Your task to perform on an android device: open app "DuckDuckGo Privacy Browser" (install if not already installed) Image 0: 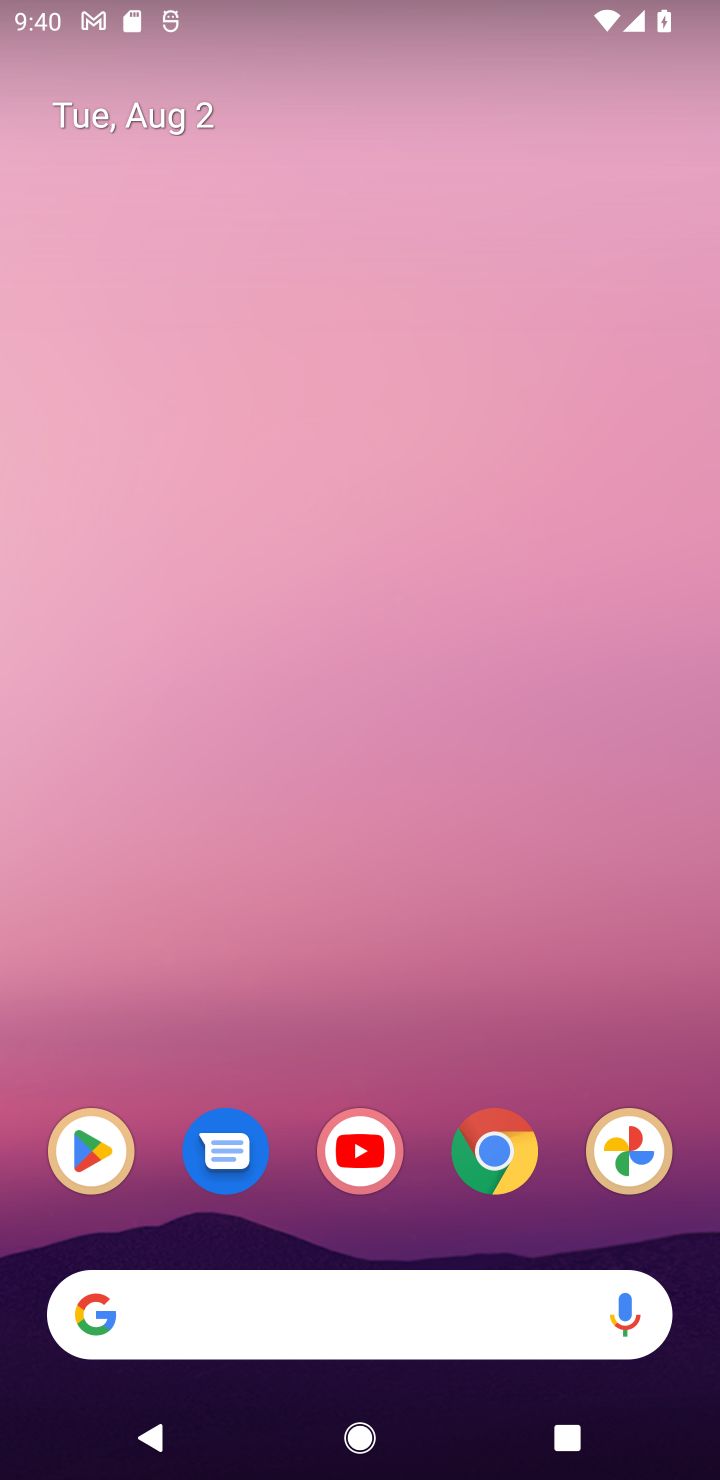
Step 0: drag from (302, 1264) to (282, 35)
Your task to perform on an android device: open app "DuckDuckGo Privacy Browser" (install if not already installed) Image 1: 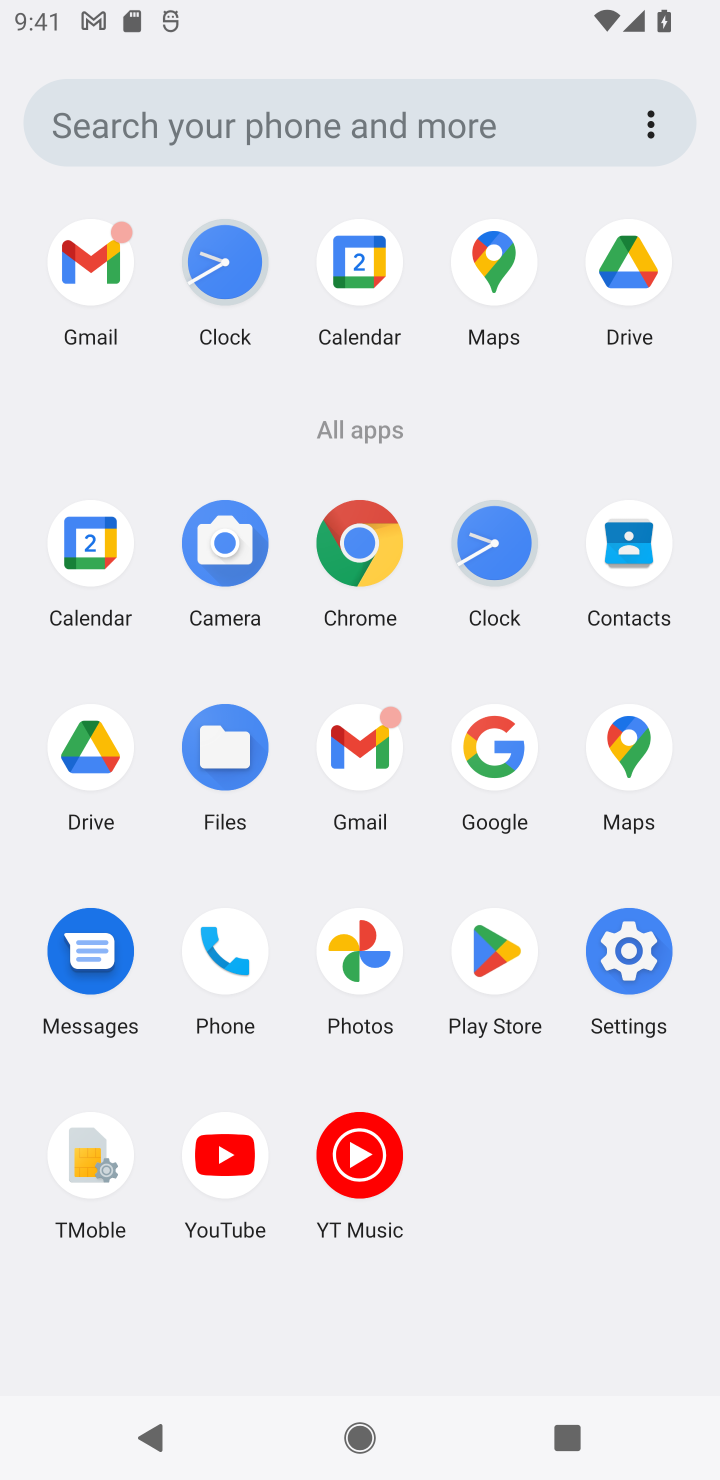
Step 1: click (462, 944)
Your task to perform on an android device: open app "DuckDuckGo Privacy Browser" (install if not already installed) Image 2: 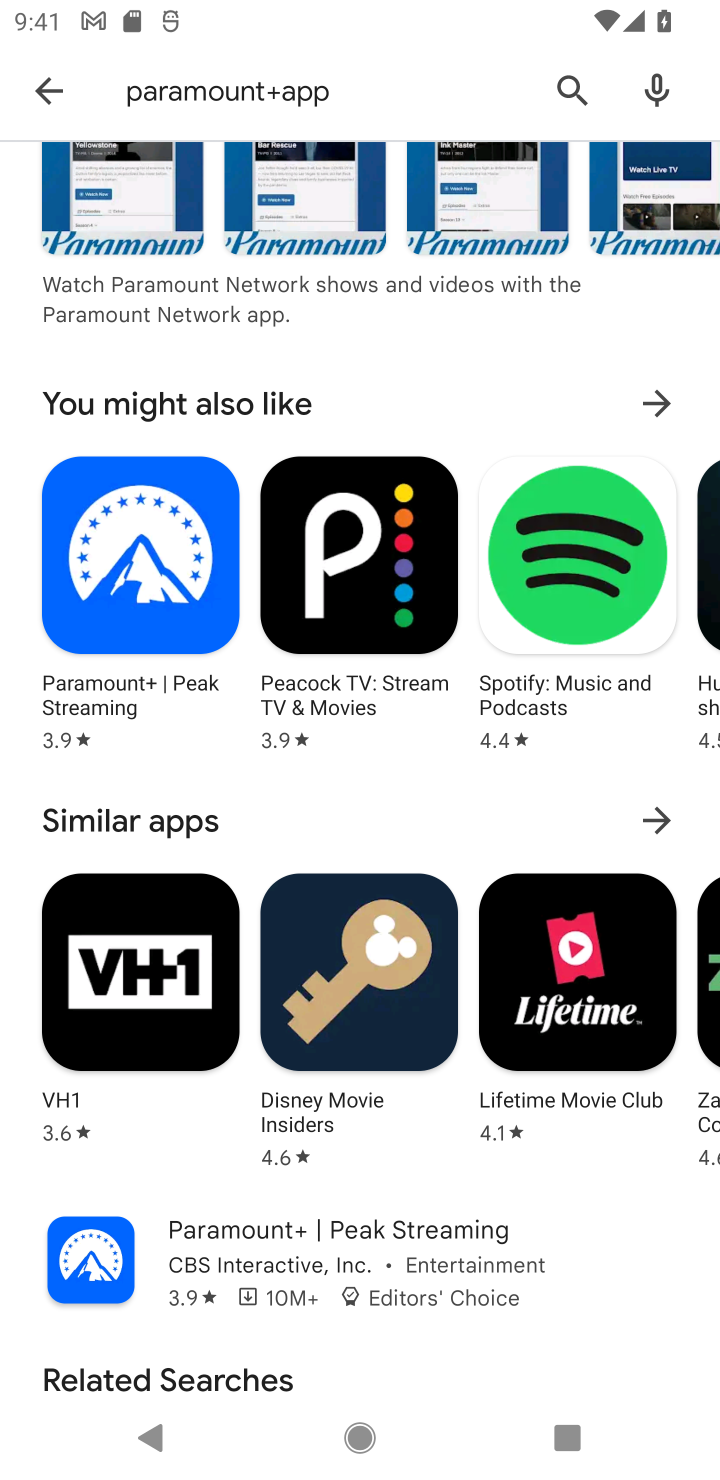
Step 2: click (39, 95)
Your task to perform on an android device: open app "DuckDuckGo Privacy Browser" (install if not already installed) Image 3: 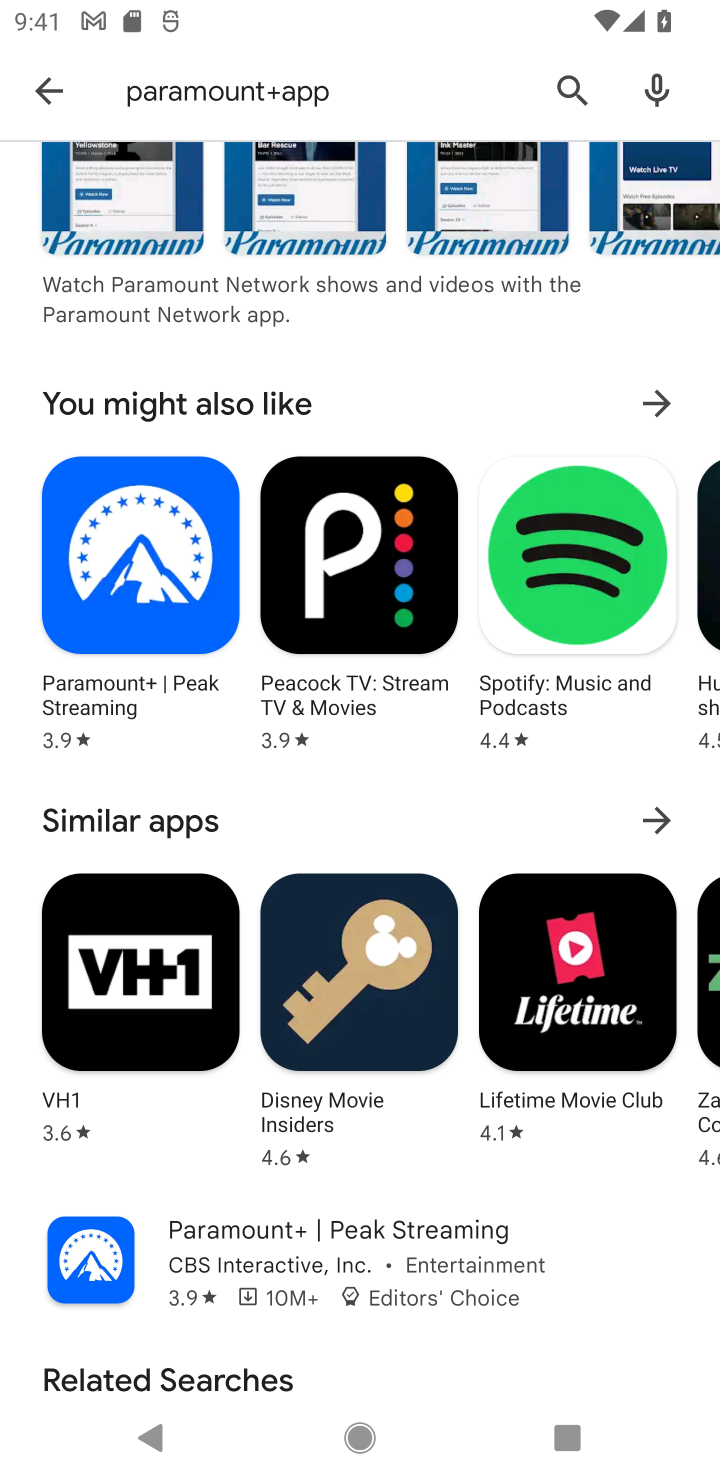
Step 3: click (40, 98)
Your task to perform on an android device: open app "DuckDuckGo Privacy Browser" (install if not already installed) Image 4: 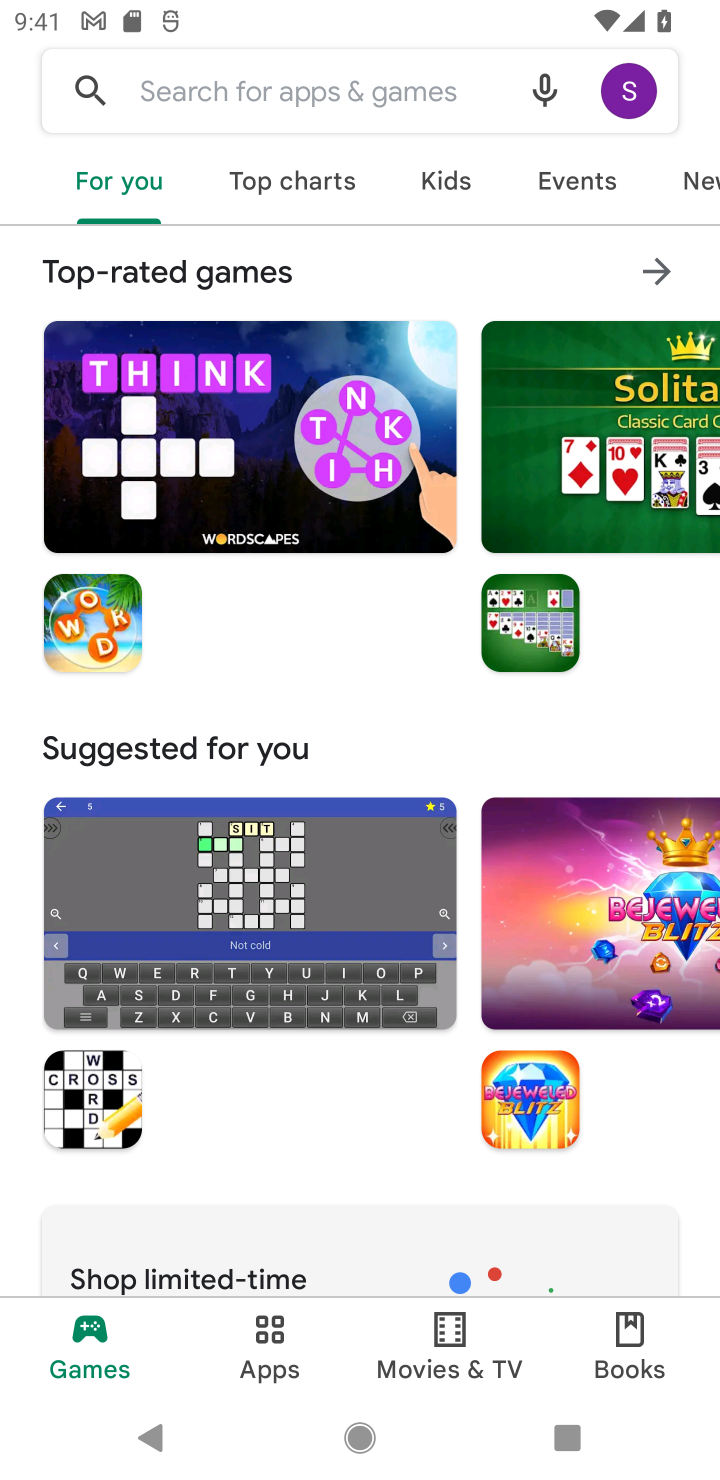
Step 4: click (146, 96)
Your task to perform on an android device: open app "DuckDuckGo Privacy Browser" (install if not already installed) Image 5: 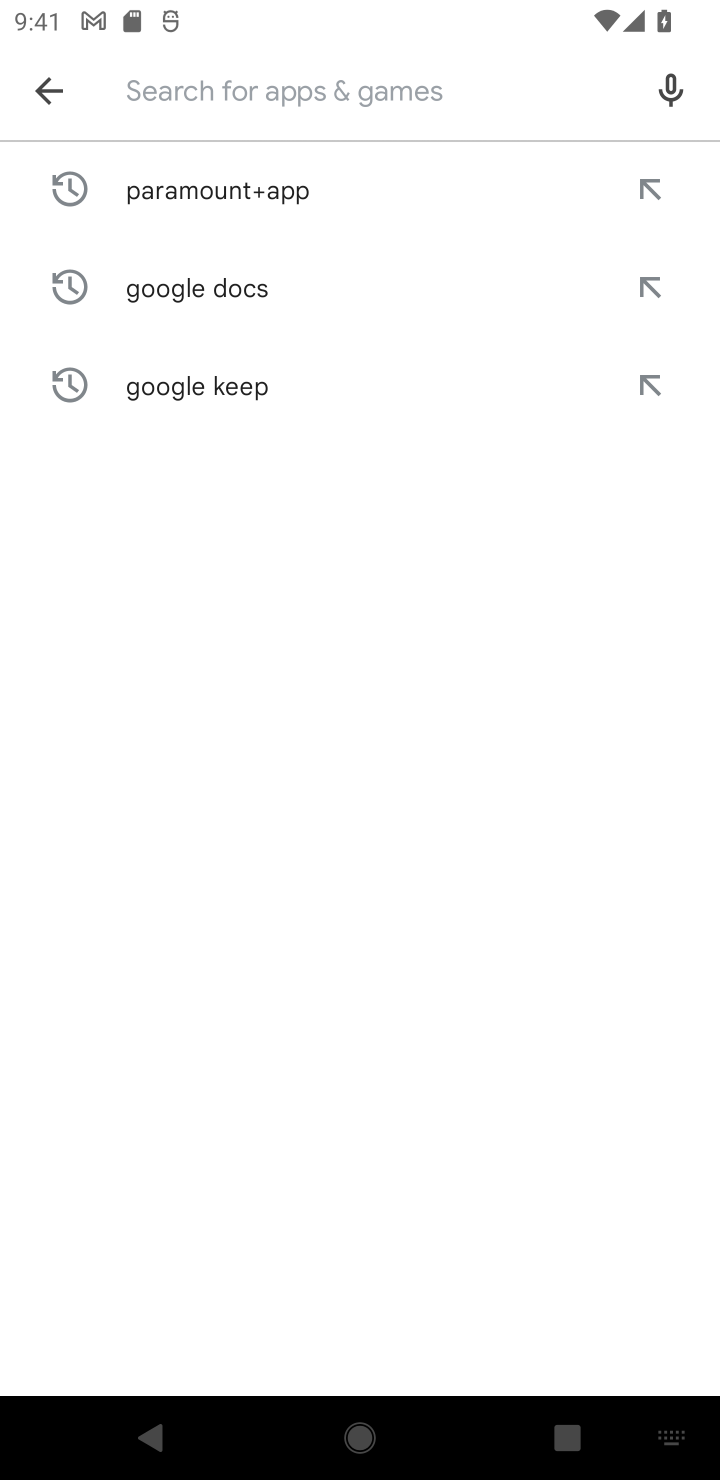
Step 5: type "DuckDuckGo Privacy Browse"
Your task to perform on an android device: open app "DuckDuckGo Privacy Browser" (install if not already installed) Image 6: 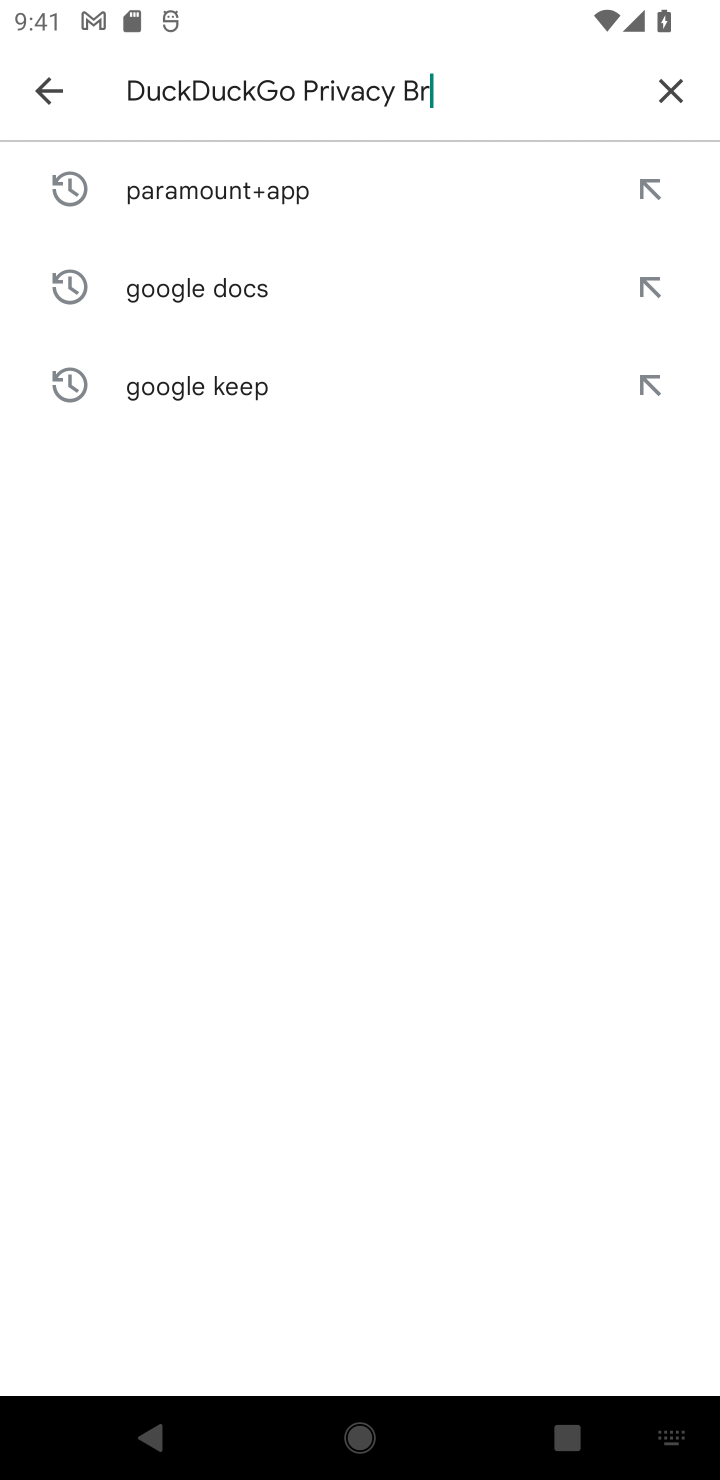
Step 6: type ""
Your task to perform on an android device: open app "DuckDuckGo Privacy Browser" (install if not already installed) Image 7: 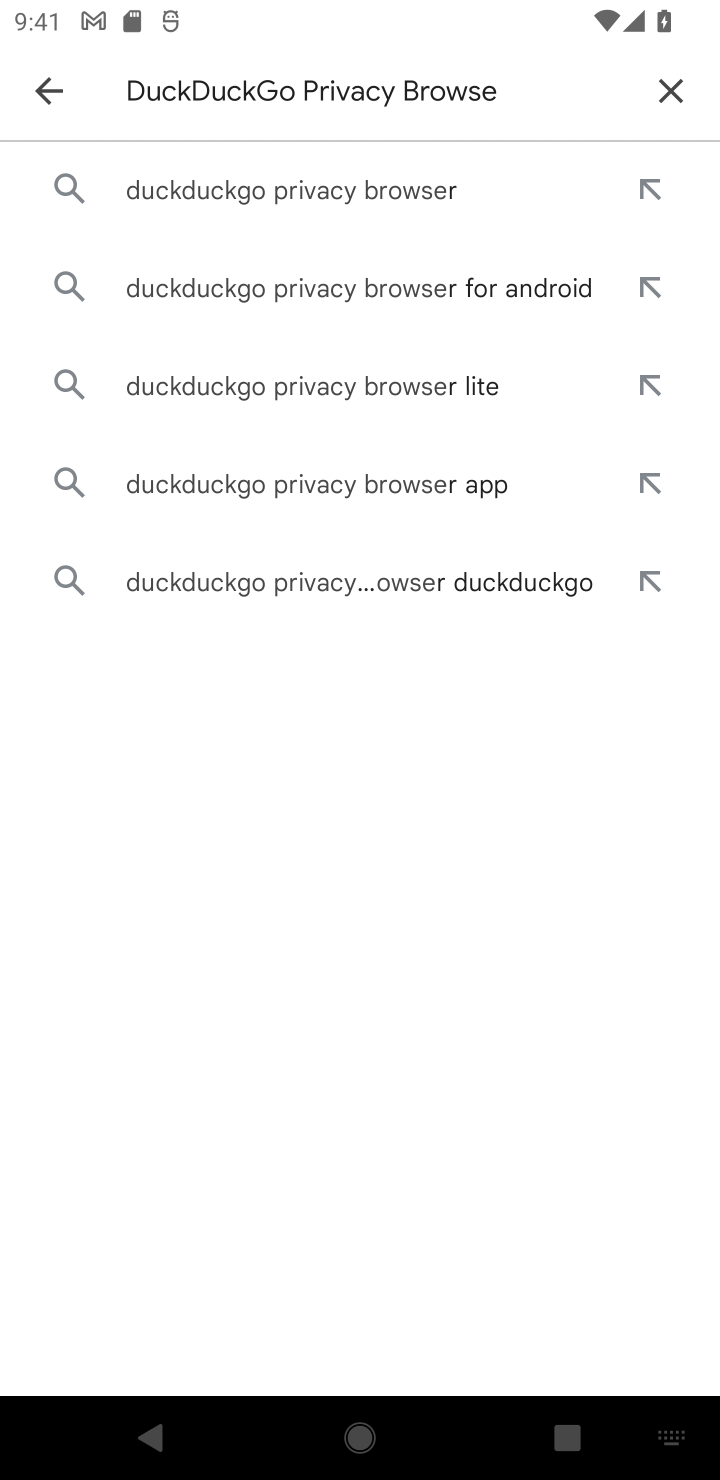
Step 7: click (385, 199)
Your task to perform on an android device: open app "DuckDuckGo Privacy Browser" (install if not already installed) Image 8: 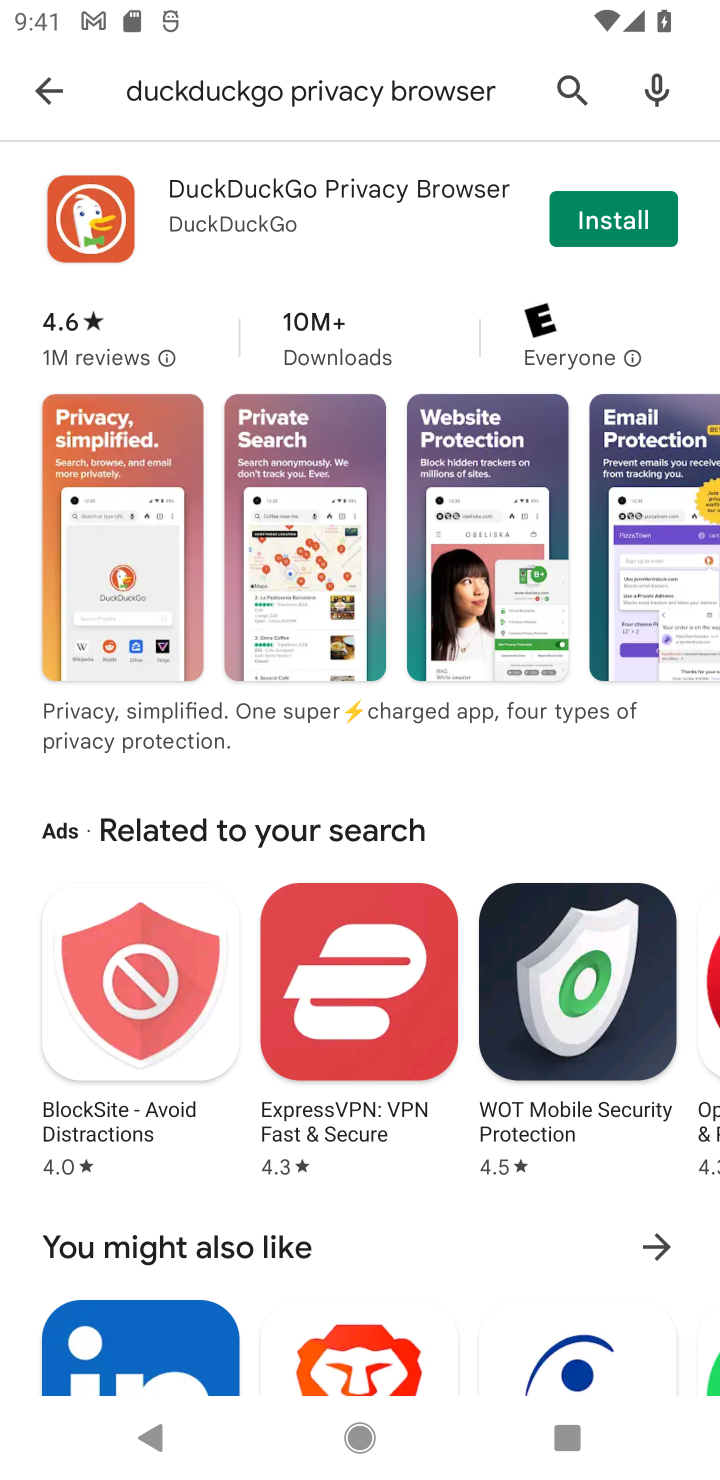
Step 8: click (628, 235)
Your task to perform on an android device: open app "DuckDuckGo Privacy Browser" (install if not already installed) Image 9: 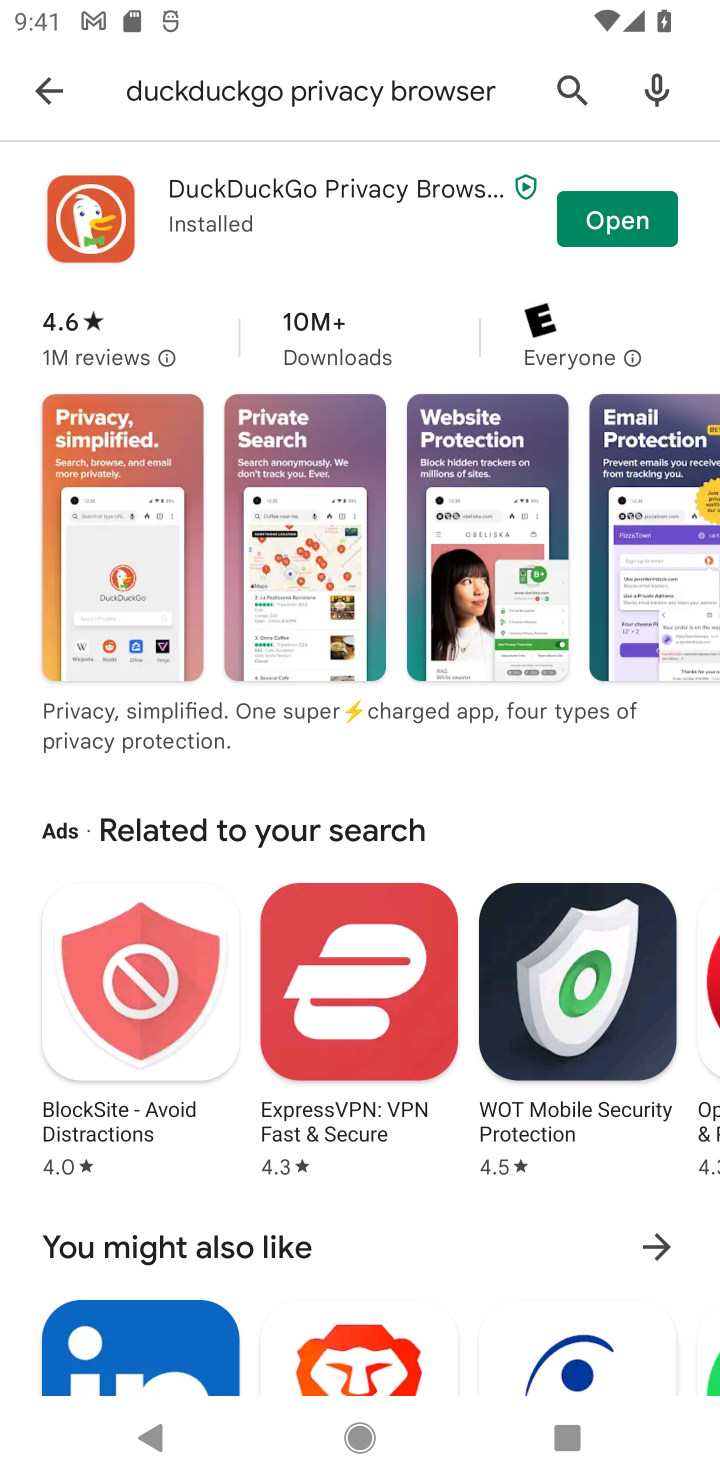
Step 9: click (608, 191)
Your task to perform on an android device: open app "DuckDuckGo Privacy Browser" (install if not already installed) Image 10: 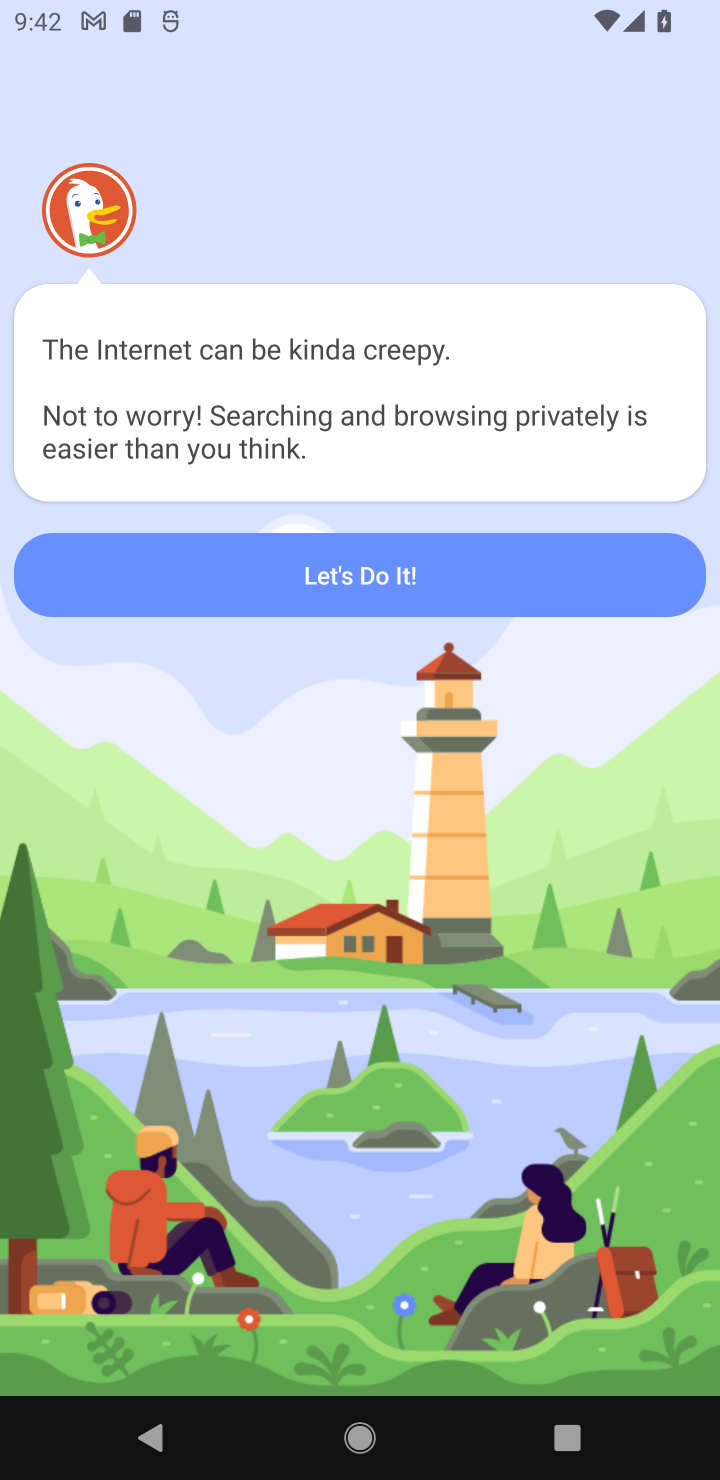
Step 10: task complete